Your task to perform on an android device: Search for Mexican restaurants on Maps Image 0: 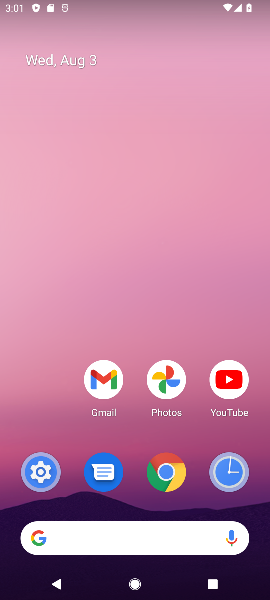
Step 0: drag from (76, 427) to (114, 78)
Your task to perform on an android device: Search for Mexican restaurants on Maps Image 1: 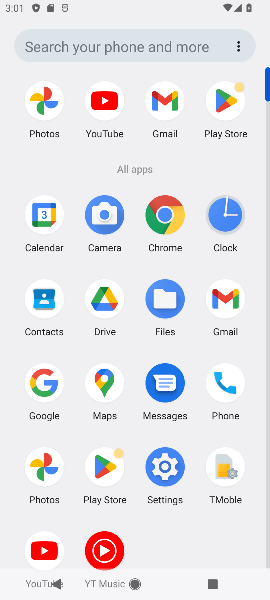
Step 1: click (121, 385)
Your task to perform on an android device: Search for Mexican restaurants on Maps Image 2: 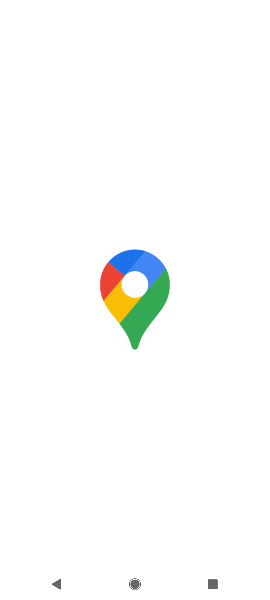
Step 2: task complete